Your task to perform on an android device: change notifications settings Image 0: 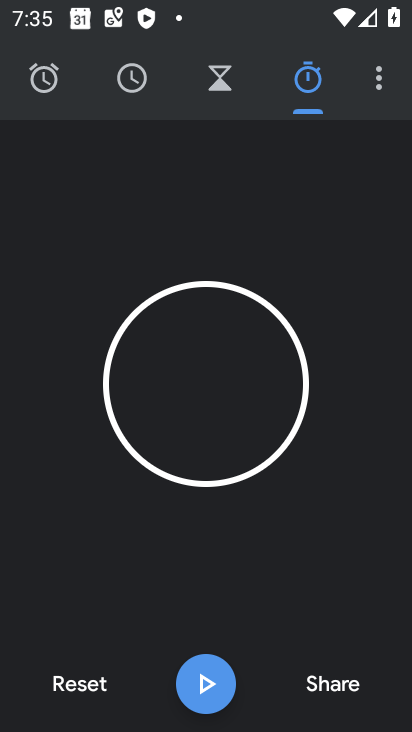
Step 0: press home button
Your task to perform on an android device: change notifications settings Image 1: 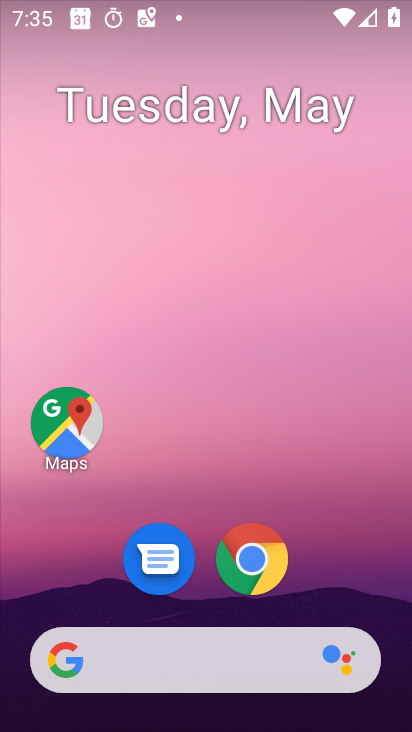
Step 1: drag from (360, 417) to (297, 90)
Your task to perform on an android device: change notifications settings Image 2: 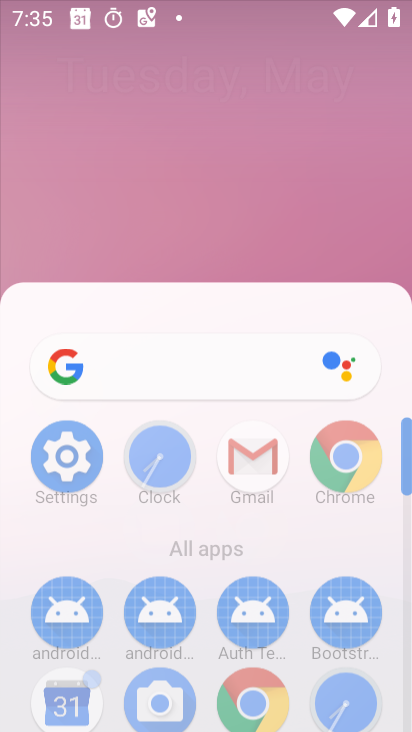
Step 2: click (279, 47)
Your task to perform on an android device: change notifications settings Image 3: 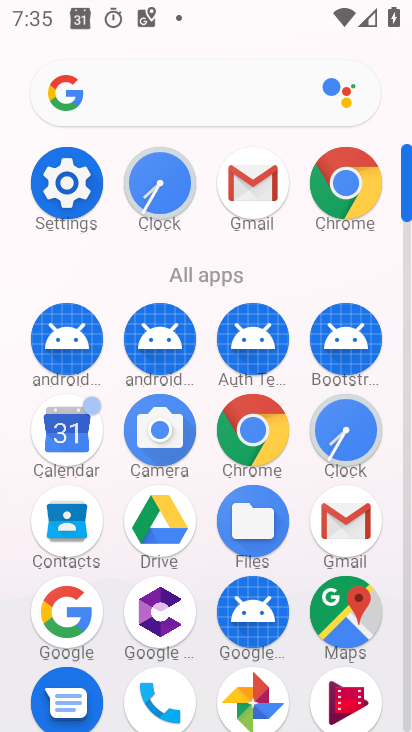
Step 3: click (72, 172)
Your task to perform on an android device: change notifications settings Image 4: 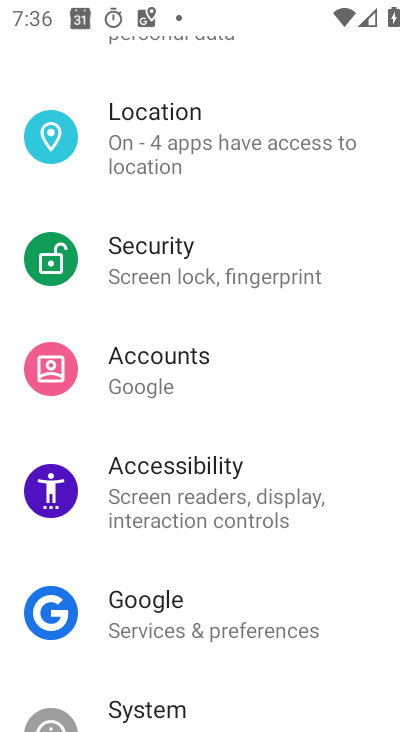
Step 4: drag from (176, 220) to (207, 730)
Your task to perform on an android device: change notifications settings Image 5: 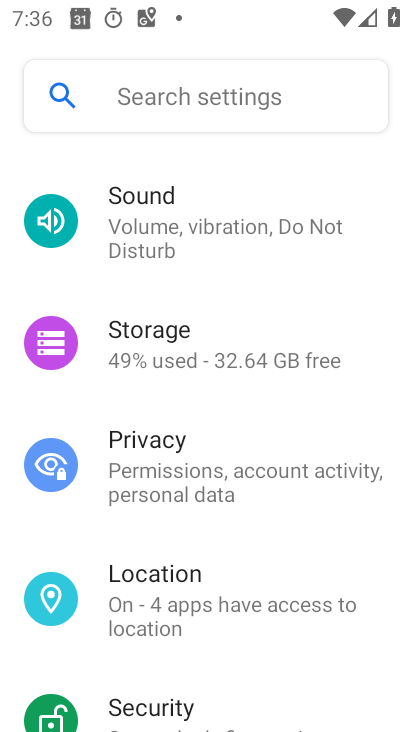
Step 5: drag from (224, 251) to (245, 730)
Your task to perform on an android device: change notifications settings Image 6: 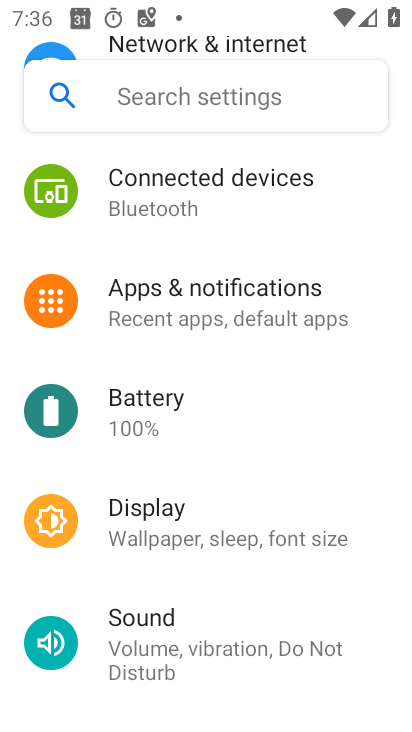
Step 6: click (232, 315)
Your task to perform on an android device: change notifications settings Image 7: 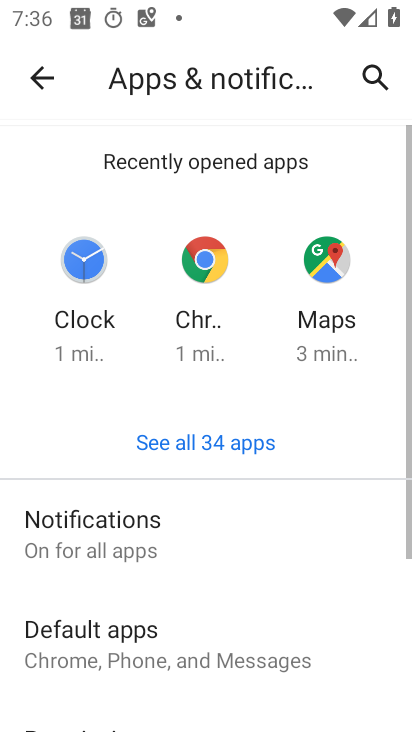
Step 7: click (199, 547)
Your task to perform on an android device: change notifications settings Image 8: 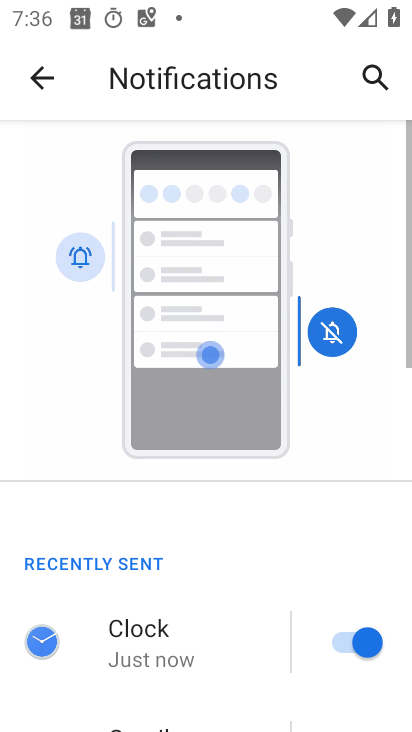
Step 8: task complete